Your task to perform on an android device: find snoozed emails in the gmail app Image 0: 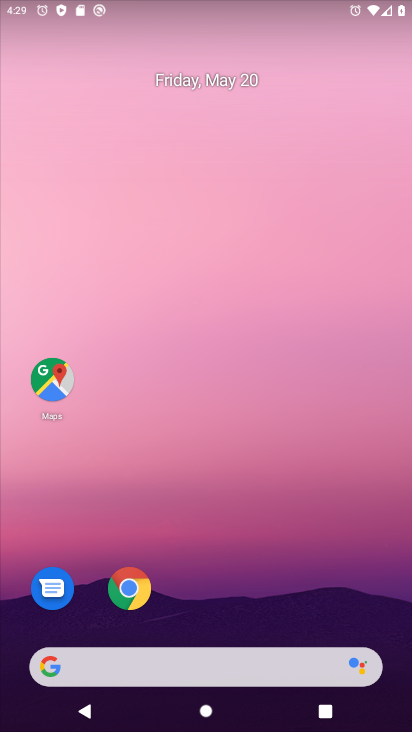
Step 0: drag from (196, 595) to (215, 37)
Your task to perform on an android device: find snoozed emails in the gmail app Image 1: 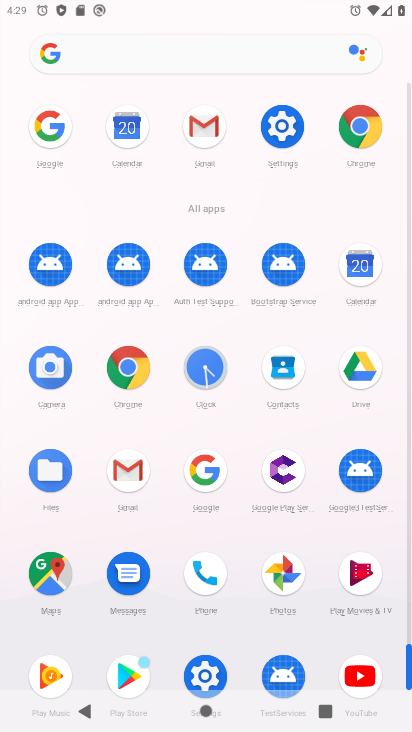
Step 1: click (123, 473)
Your task to perform on an android device: find snoozed emails in the gmail app Image 2: 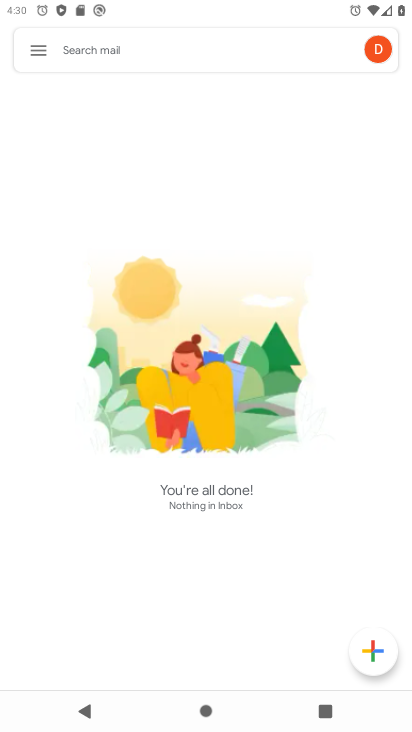
Step 2: click (40, 54)
Your task to perform on an android device: find snoozed emails in the gmail app Image 3: 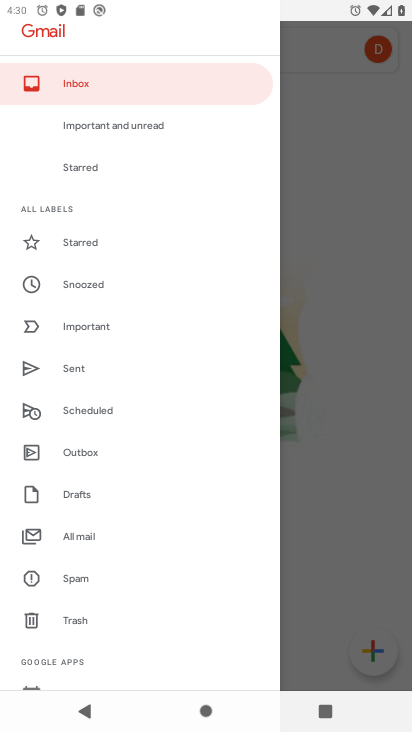
Step 3: click (93, 275)
Your task to perform on an android device: find snoozed emails in the gmail app Image 4: 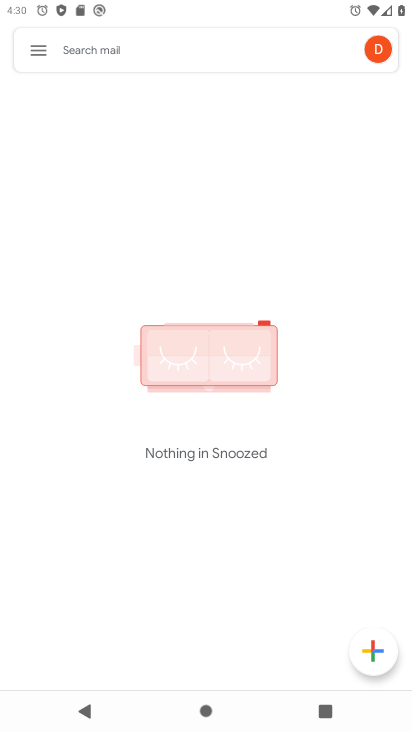
Step 4: task complete